Your task to perform on an android device: turn off javascript in the chrome app Image 0: 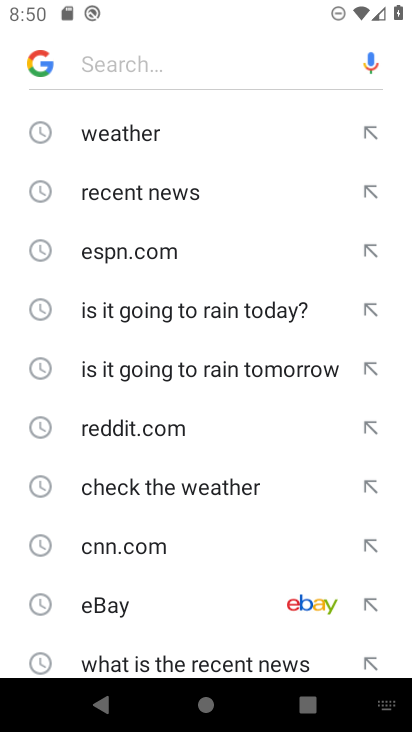
Step 0: press home button
Your task to perform on an android device: turn off javascript in the chrome app Image 1: 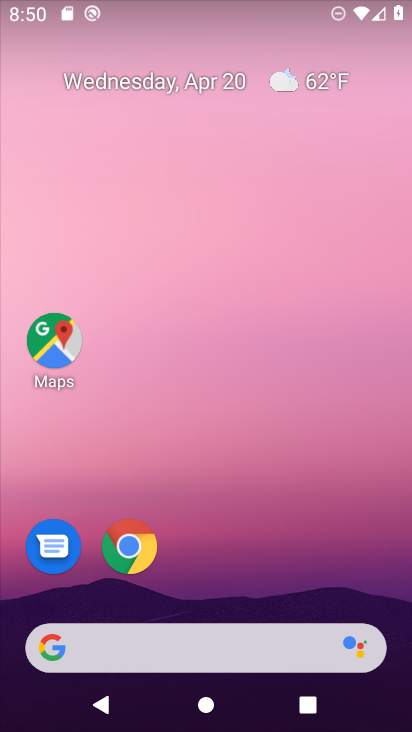
Step 1: click (137, 539)
Your task to perform on an android device: turn off javascript in the chrome app Image 2: 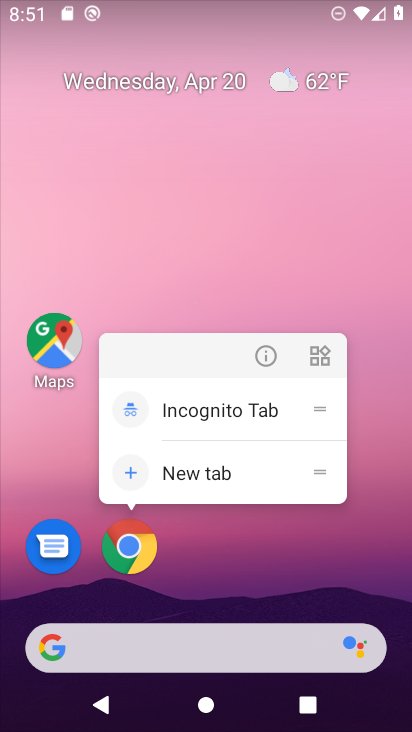
Step 2: click (137, 540)
Your task to perform on an android device: turn off javascript in the chrome app Image 3: 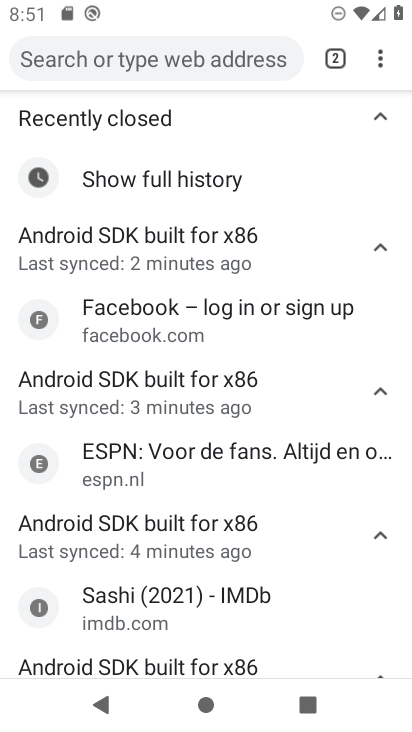
Step 3: click (380, 58)
Your task to perform on an android device: turn off javascript in the chrome app Image 4: 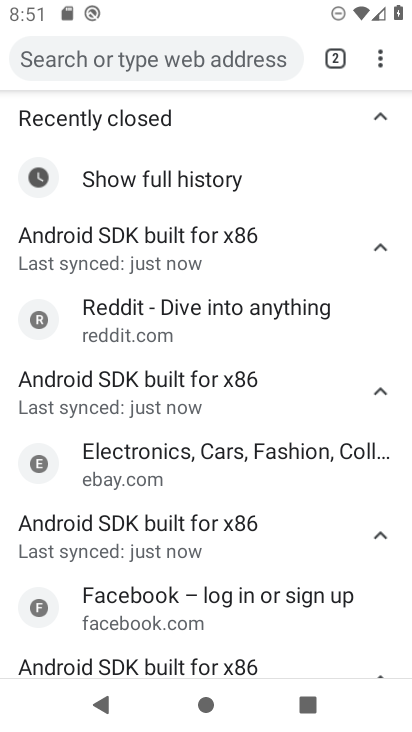
Step 4: click (380, 61)
Your task to perform on an android device: turn off javascript in the chrome app Image 5: 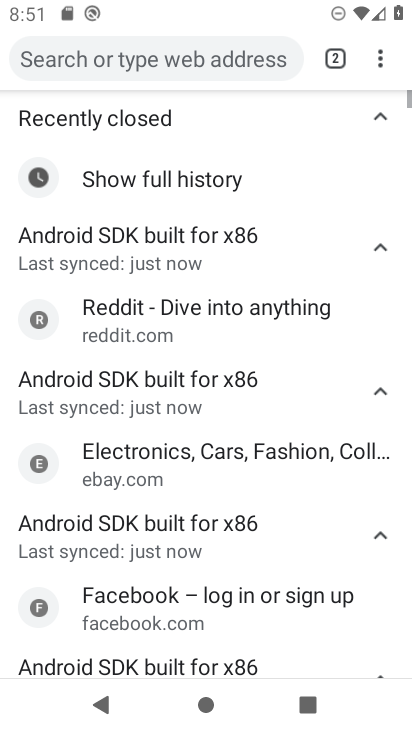
Step 5: click (380, 61)
Your task to perform on an android device: turn off javascript in the chrome app Image 6: 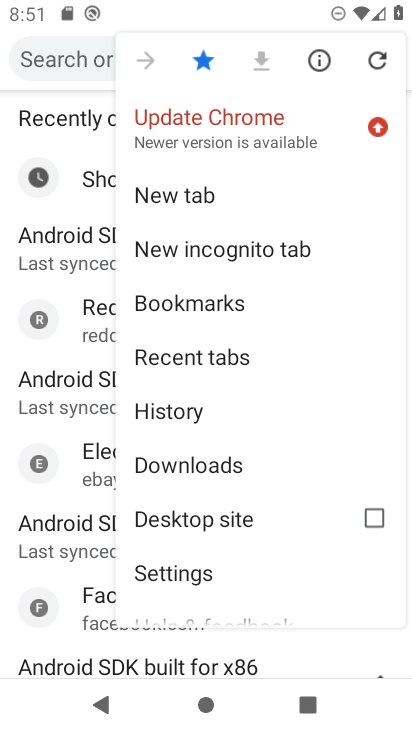
Step 6: click (206, 567)
Your task to perform on an android device: turn off javascript in the chrome app Image 7: 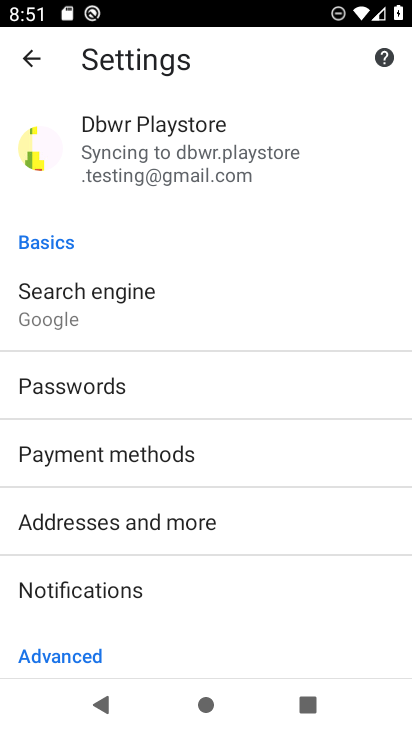
Step 7: drag from (206, 567) to (204, 186)
Your task to perform on an android device: turn off javascript in the chrome app Image 8: 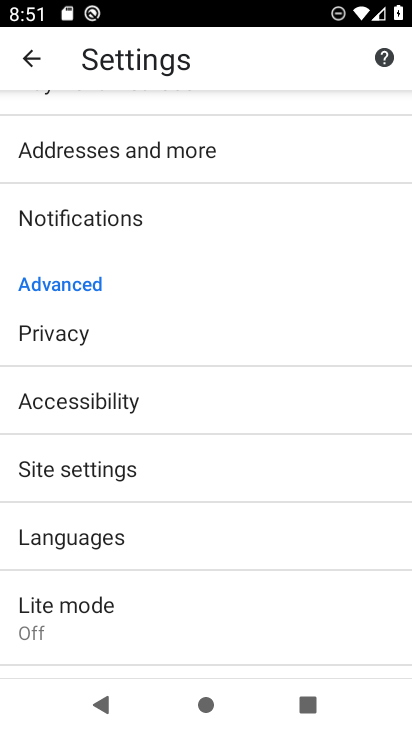
Step 8: click (188, 474)
Your task to perform on an android device: turn off javascript in the chrome app Image 9: 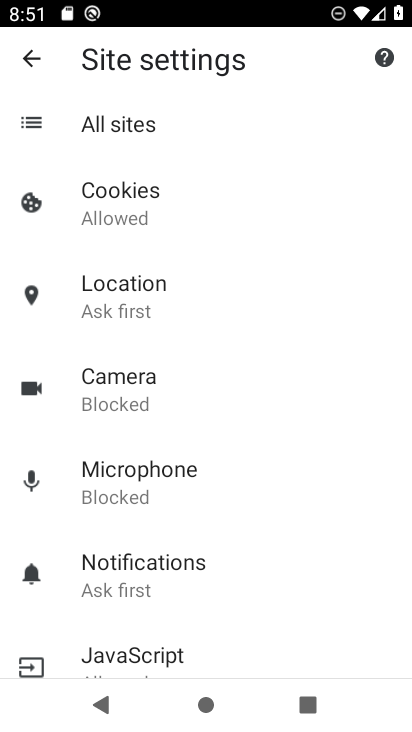
Step 9: drag from (235, 527) to (256, 353)
Your task to perform on an android device: turn off javascript in the chrome app Image 10: 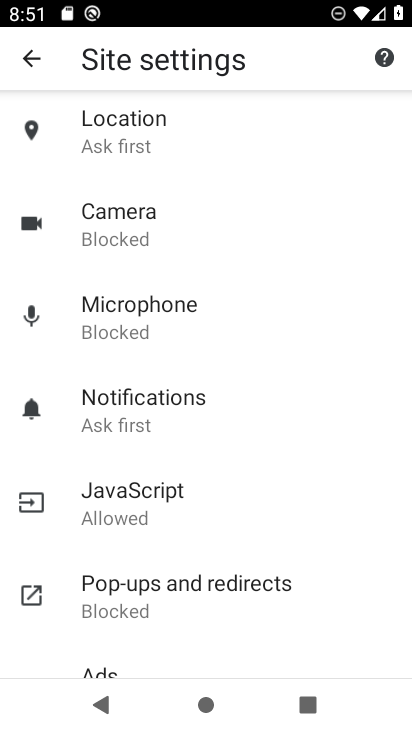
Step 10: click (211, 492)
Your task to perform on an android device: turn off javascript in the chrome app Image 11: 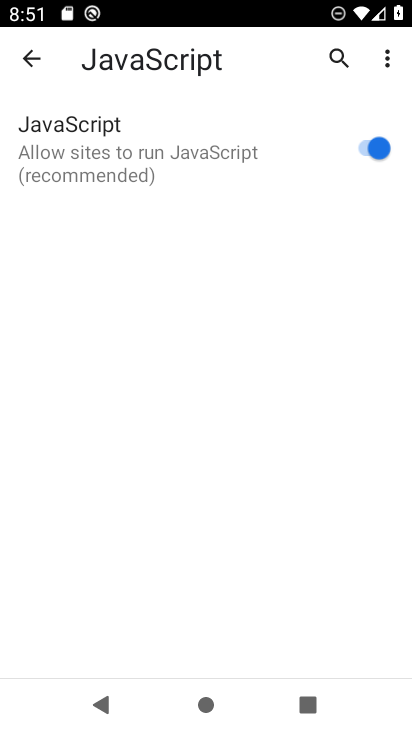
Step 11: click (366, 145)
Your task to perform on an android device: turn off javascript in the chrome app Image 12: 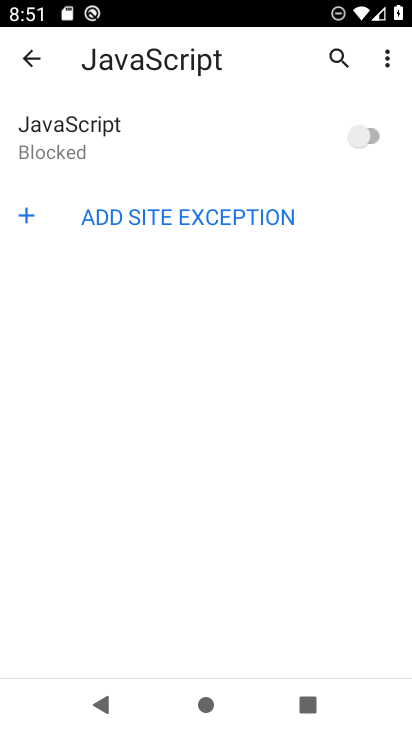
Step 12: task complete